Your task to perform on an android device: add a label to a message in the gmail app Image 0: 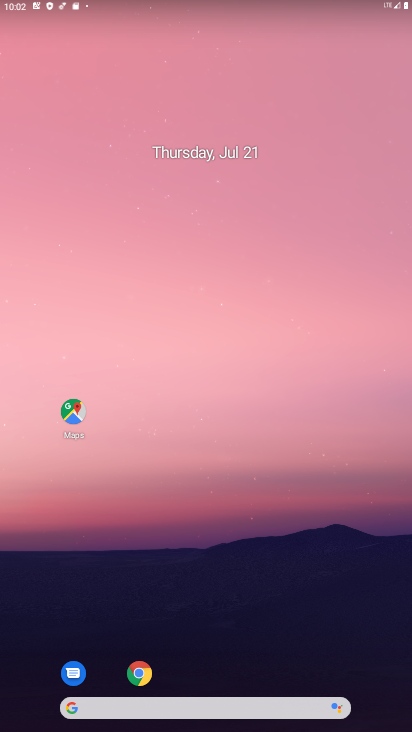
Step 0: drag from (197, 620) to (202, 239)
Your task to perform on an android device: add a label to a message in the gmail app Image 1: 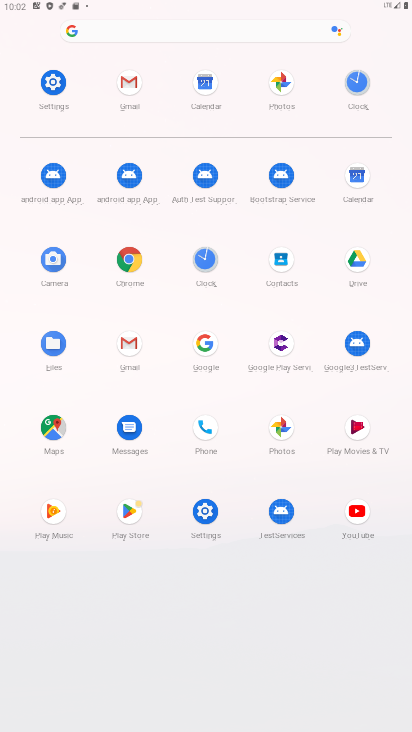
Step 1: click (136, 109)
Your task to perform on an android device: add a label to a message in the gmail app Image 2: 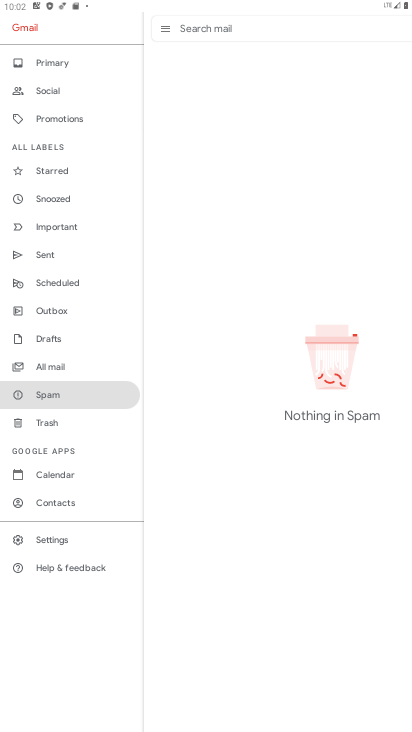
Step 2: click (76, 371)
Your task to perform on an android device: add a label to a message in the gmail app Image 3: 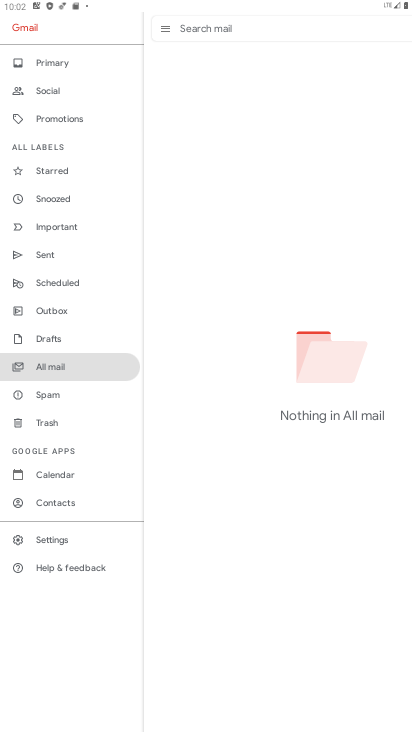
Step 3: task complete